Your task to perform on an android device: turn off wifi Image 0: 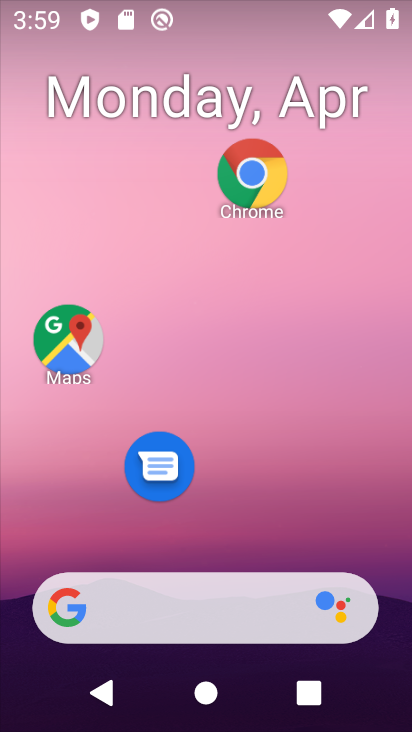
Step 0: drag from (333, 144) to (314, 64)
Your task to perform on an android device: turn off wifi Image 1: 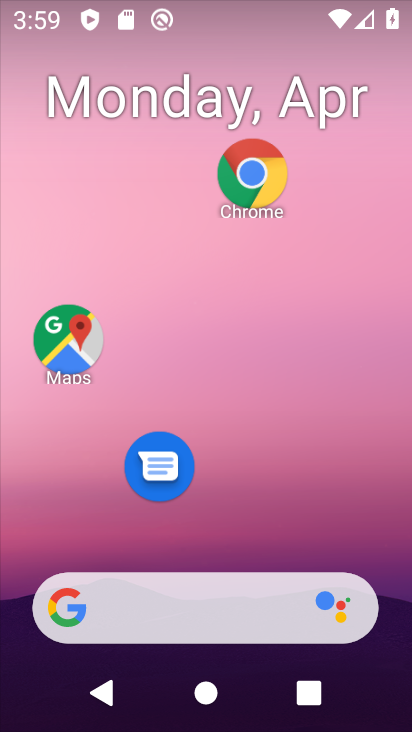
Step 1: drag from (403, 580) to (338, 188)
Your task to perform on an android device: turn off wifi Image 2: 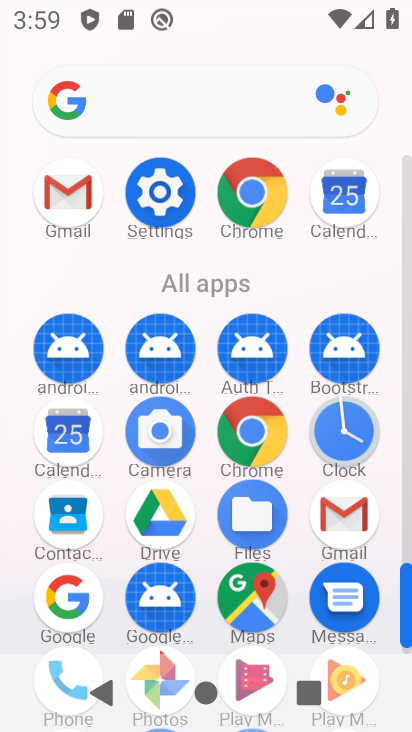
Step 2: click (164, 196)
Your task to perform on an android device: turn off wifi Image 3: 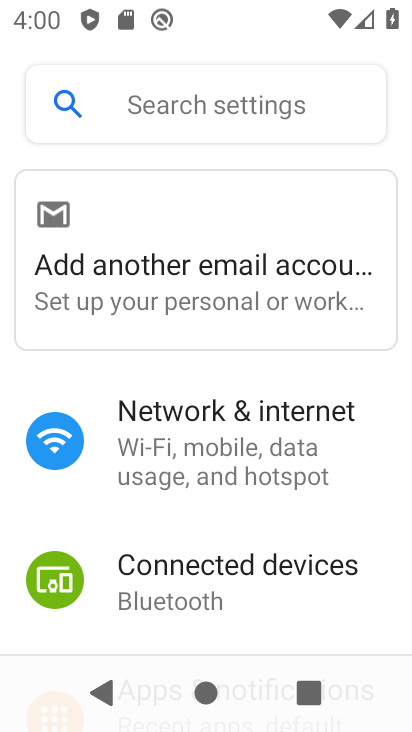
Step 3: click (301, 413)
Your task to perform on an android device: turn off wifi Image 4: 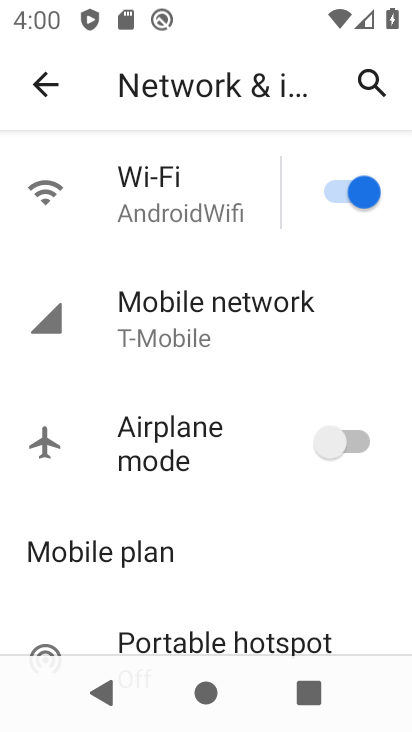
Step 4: click (343, 197)
Your task to perform on an android device: turn off wifi Image 5: 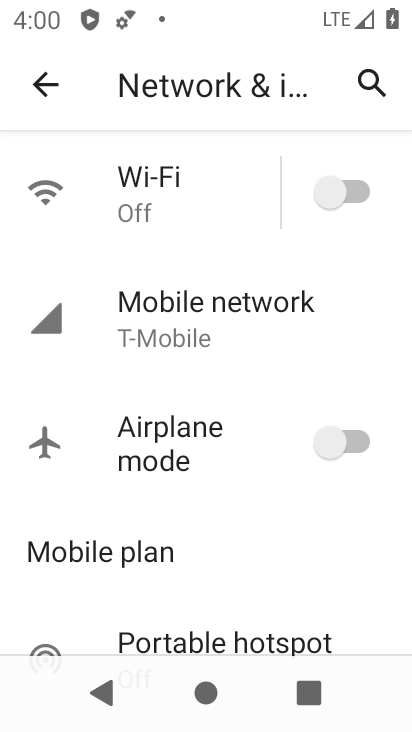
Step 5: task complete